Your task to perform on an android device: Open ESPN.com Image 0: 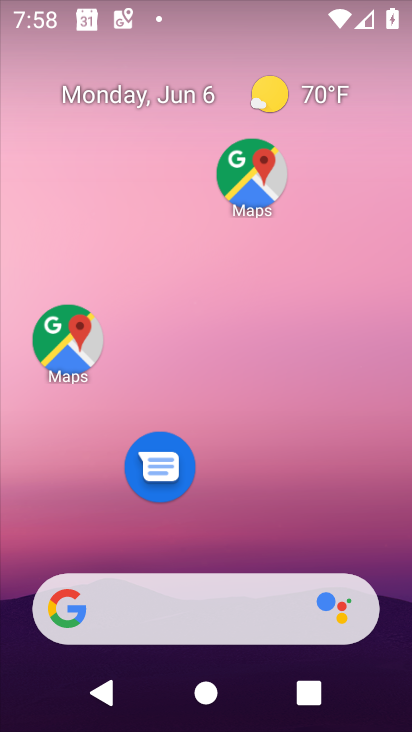
Step 0: drag from (244, 320) to (199, 102)
Your task to perform on an android device: Open ESPN.com Image 1: 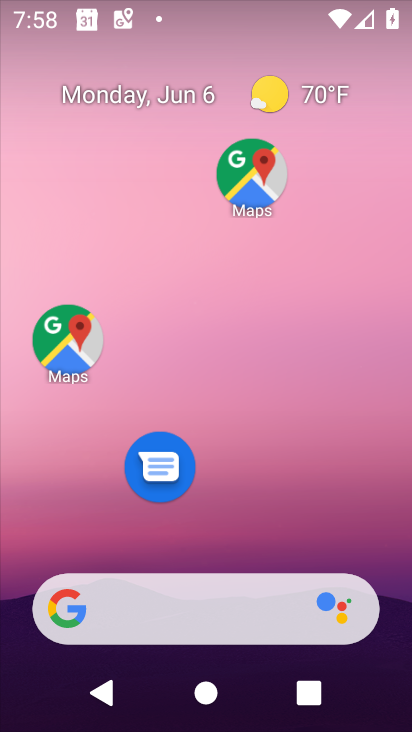
Step 1: drag from (252, 685) to (202, 87)
Your task to perform on an android device: Open ESPN.com Image 2: 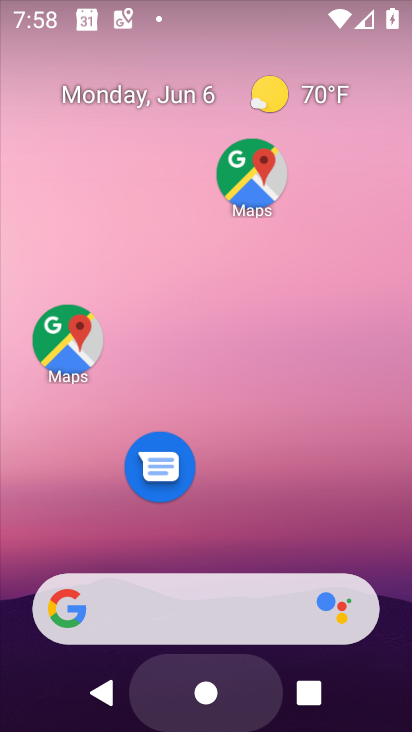
Step 2: drag from (217, 149) to (229, 9)
Your task to perform on an android device: Open ESPN.com Image 3: 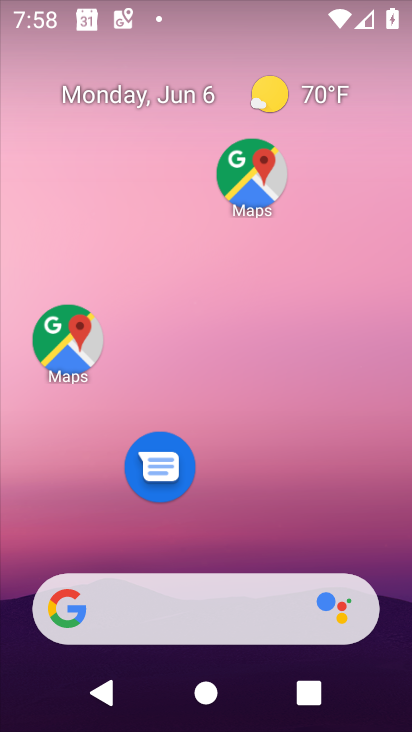
Step 3: drag from (316, 401) to (275, 138)
Your task to perform on an android device: Open ESPN.com Image 4: 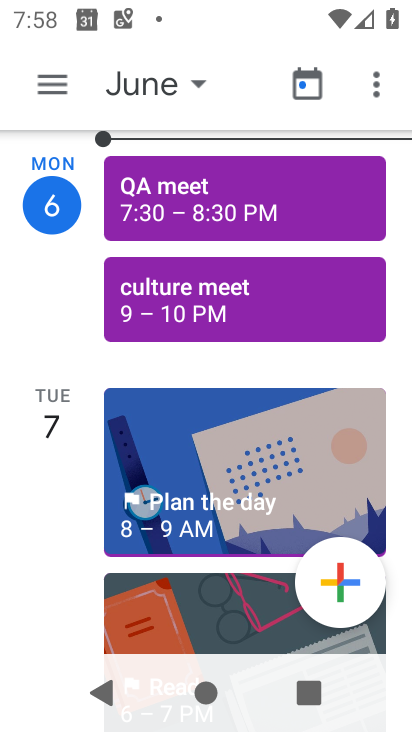
Step 4: drag from (293, 515) to (246, 217)
Your task to perform on an android device: Open ESPN.com Image 5: 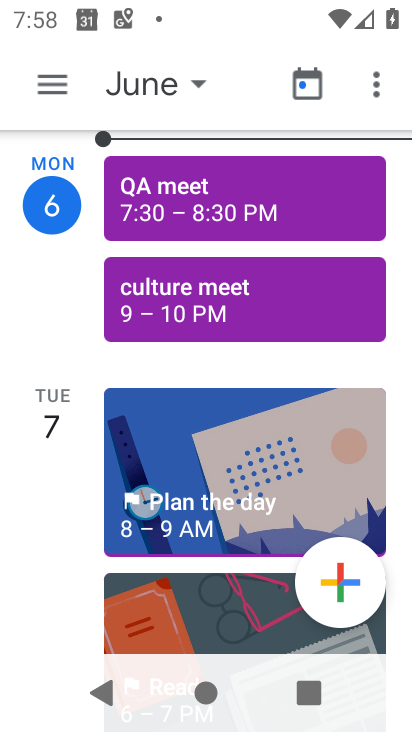
Step 5: press back button
Your task to perform on an android device: Open ESPN.com Image 6: 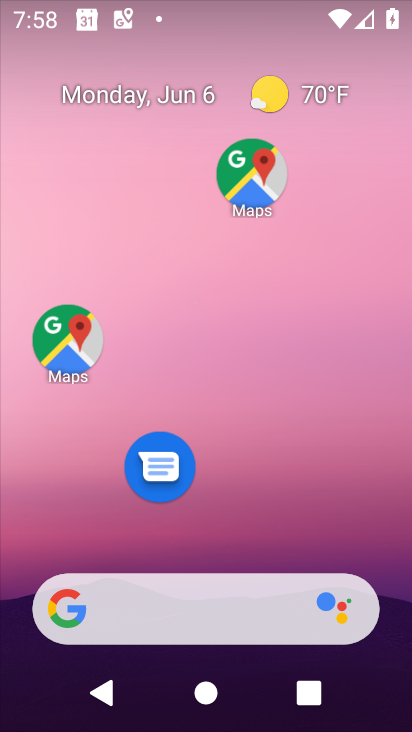
Step 6: drag from (252, 649) to (204, 93)
Your task to perform on an android device: Open ESPN.com Image 7: 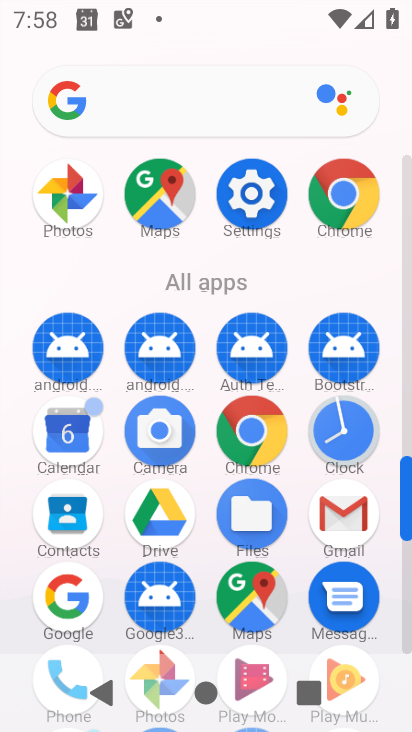
Step 7: drag from (353, 492) to (337, 198)
Your task to perform on an android device: Open ESPN.com Image 8: 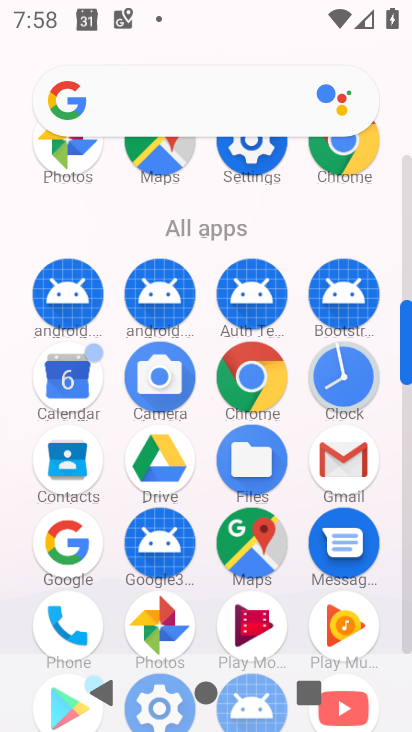
Step 8: drag from (216, 594) to (206, 178)
Your task to perform on an android device: Open ESPN.com Image 9: 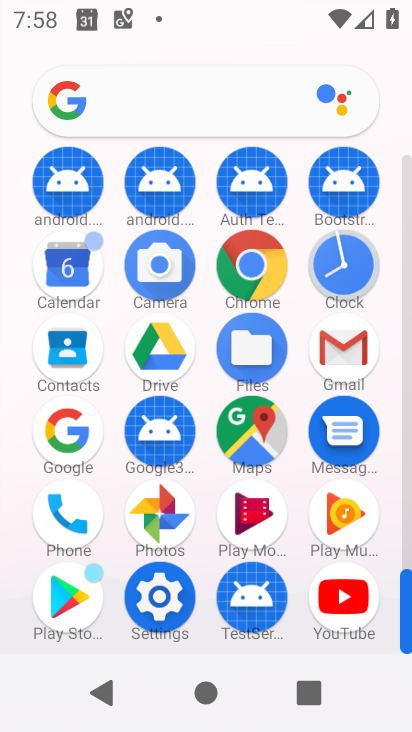
Step 9: drag from (212, 514) to (216, 214)
Your task to perform on an android device: Open ESPN.com Image 10: 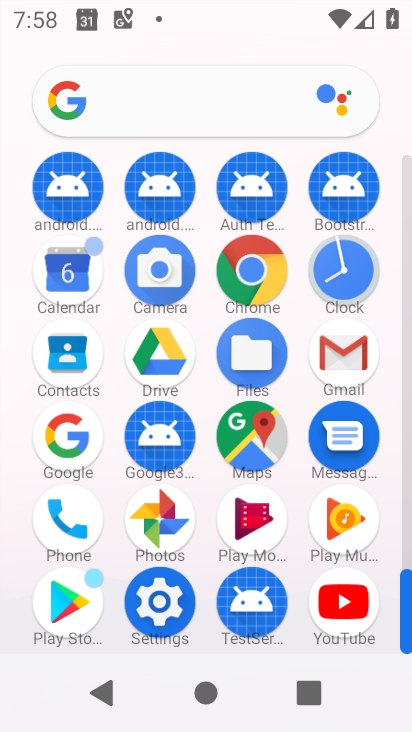
Step 10: drag from (194, 219) to (190, 143)
Your task to perform on an android device: Open ESPN.com Image 11: 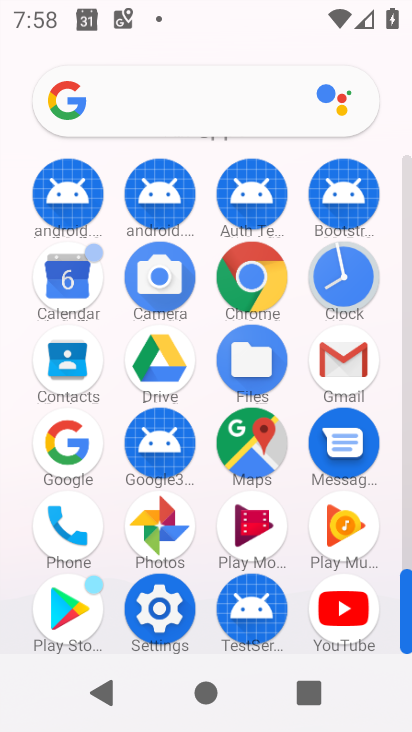
Step 11: click (258, 294)
Your task to perform on an android device: Open ESPN.com Image 12: 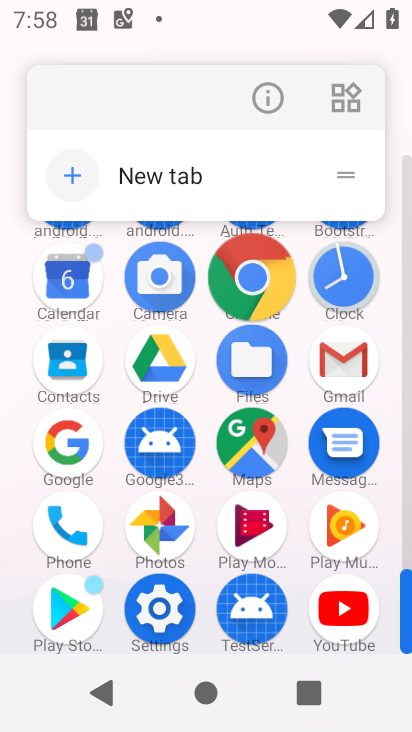
Step 12: click (256, 292)
Your task to perform on an android device: Open ESPN.com Image 13: 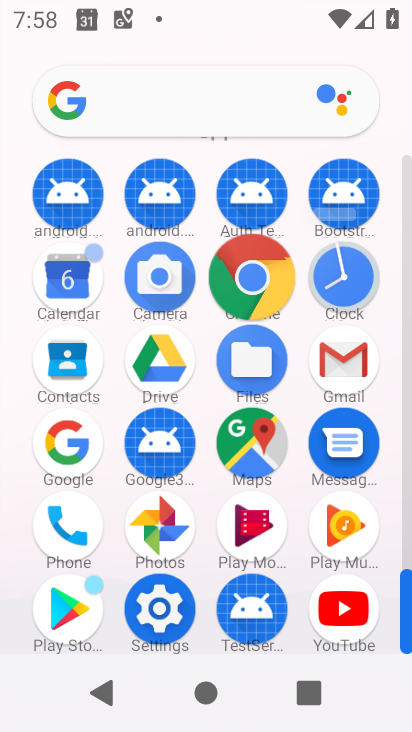
Step 13: click (254, 292)
Your task to perform on an android device: Open ESPN.com Image 14: 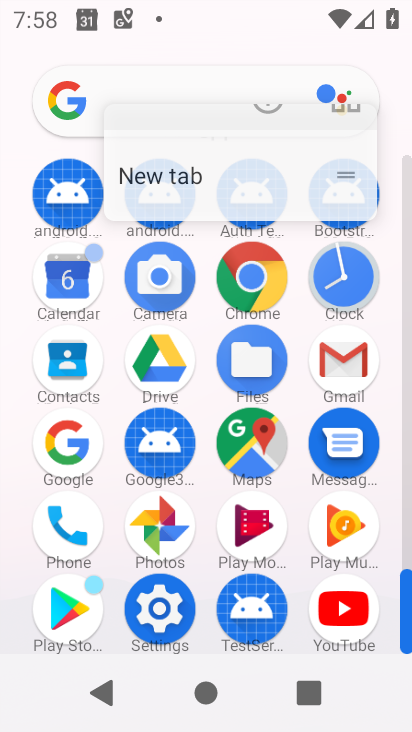
Step 14: click (252, 296)
Your task to perform on an android device: Open ESPN.com Image 15: 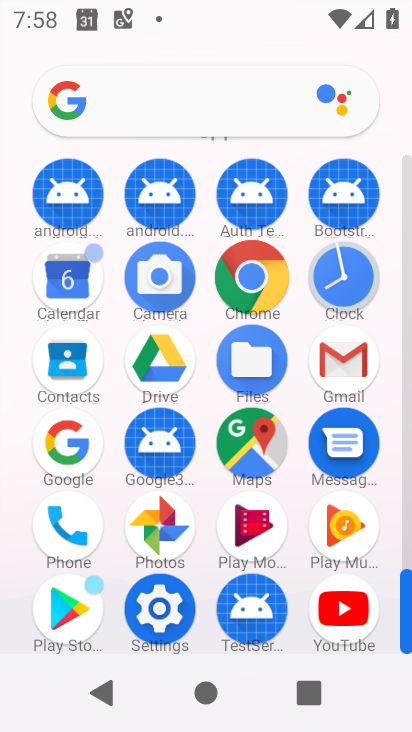
Step 15: click (249, 296)
Your task to perform on an android device: Open ESPN.com Image 16: 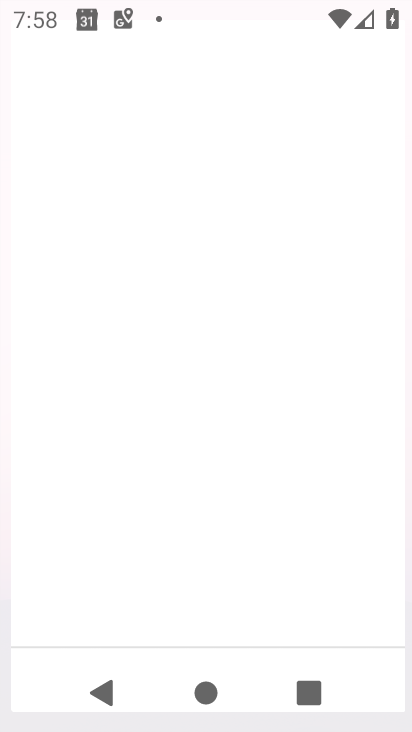
Step 16: click (245, 286)
Your task to perform on an android device: Open ESPN.com Image 17: 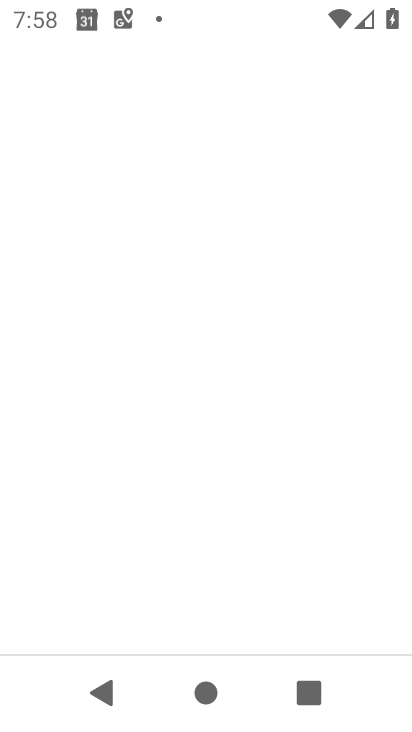
Step 17: click (240, 279)
Your task to perform on an android device: Open ESPN.com Image 18: 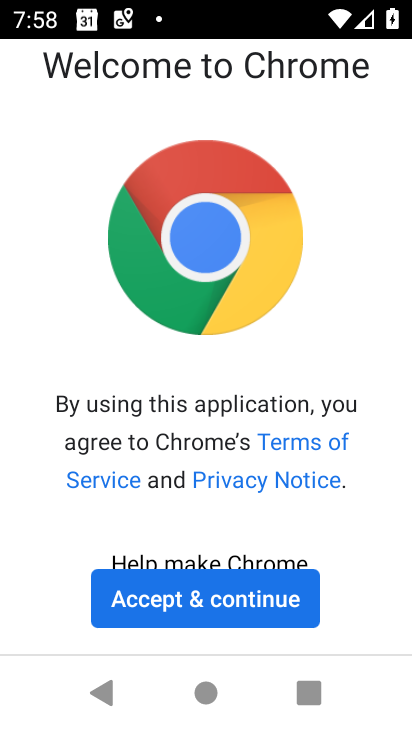
Step 18: click (213, 581)
Your task to perform on an android device: Open ESPN.com Image 19: 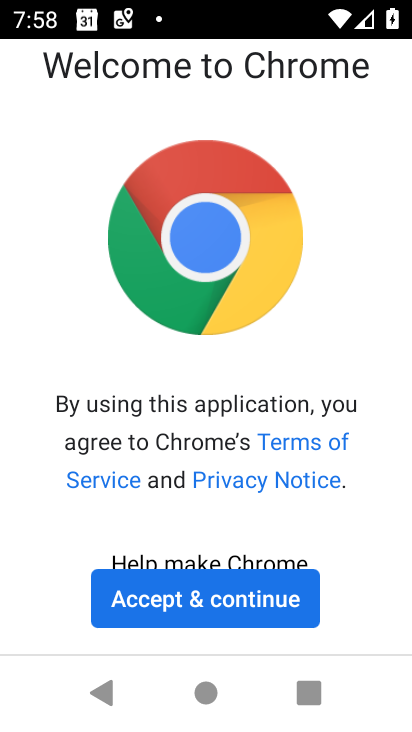
Step 19: click (219, 594)
Your task to perform on an android device: Open ESPN.com Image 20: 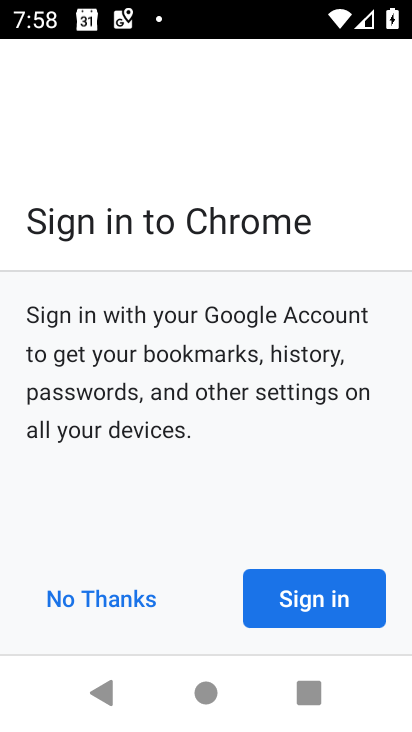
Step 20: click (227, 598)
Your task to perform on an android device: Open ESPN.com Image 21: 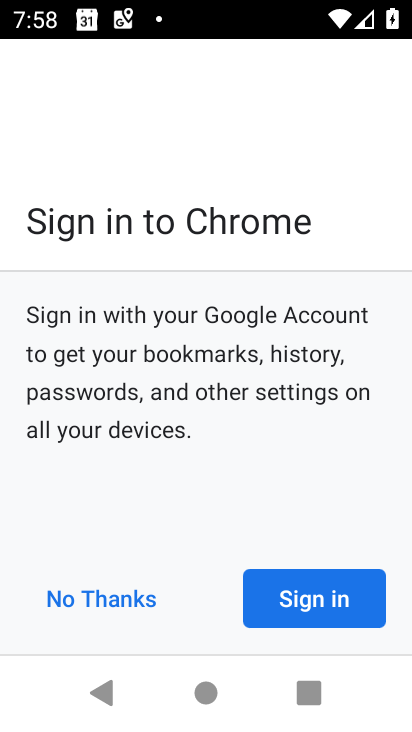
Step 21: click (234, 599)
Your task to perform on an android device: Open ESPN.com Image 22: 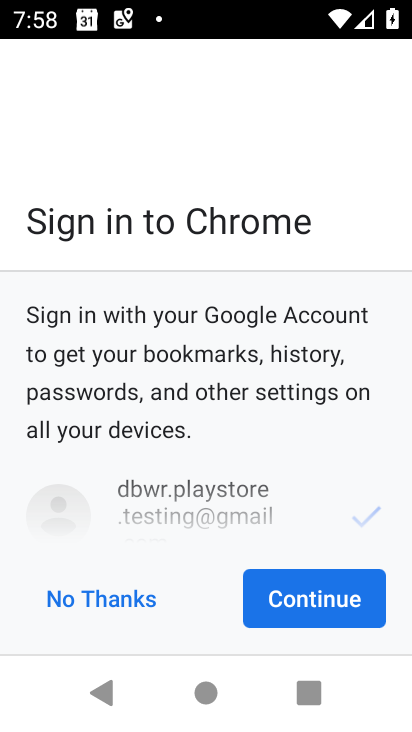
Step 22: click (236, 599)
Your task to perform on an android device: Open ESPN.com Image 23: 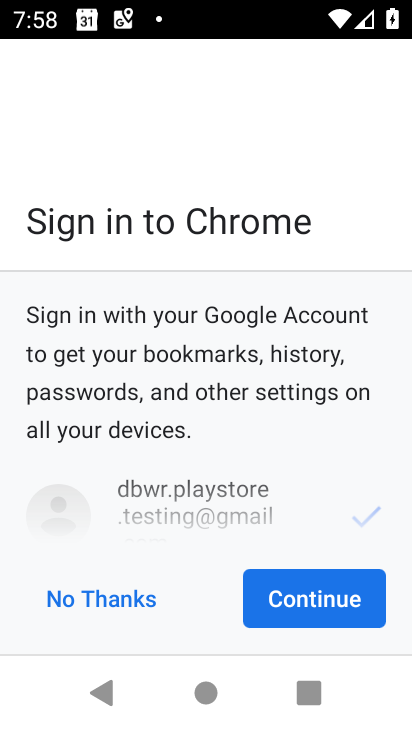
Step 23: click (354, 594)
Your task to perform on an android device: Open ESPN.com Image 24: 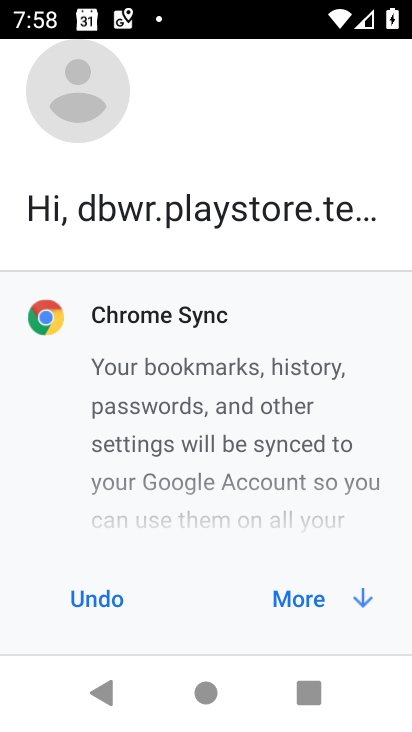
Step 24: click (350, 596)
Your task to perform on an android device: Open ESPN.com Image 25: 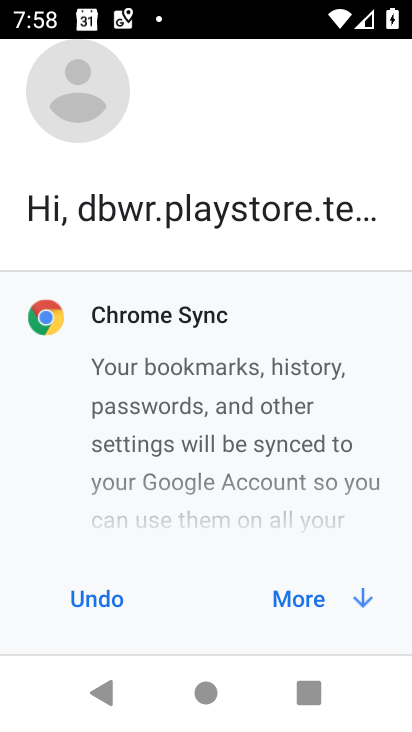
Step 25: click (348, 594)
Your task to perform on an android device: Open ESPN.com Image 26: 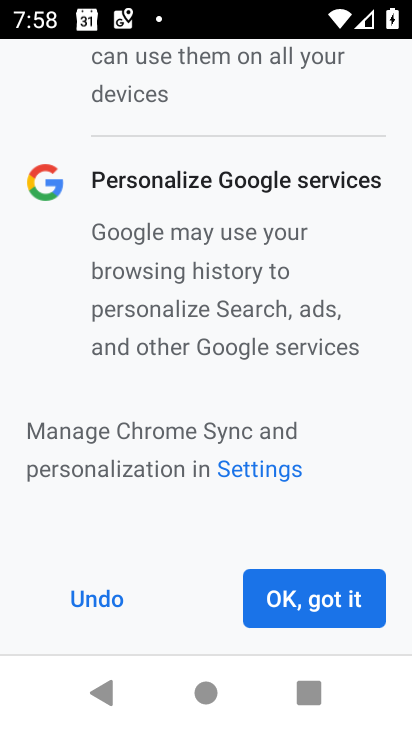
Step 26: click (343, 601)
Your task to perform on an android device: Open ESPN.com Image 27: 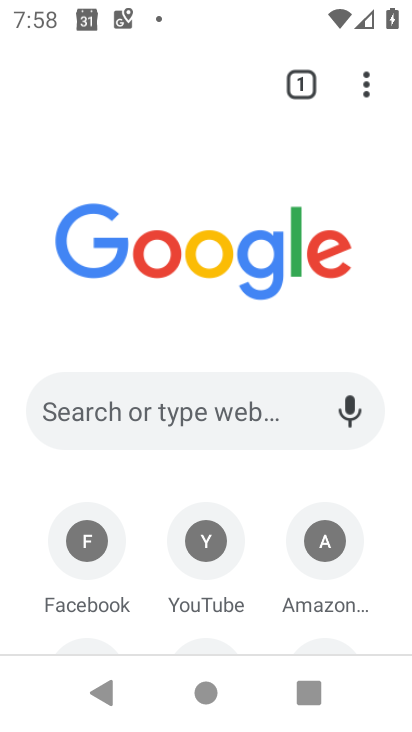
Step 27: drag from (364, 95) to (81, 177)
Your task to perform on an android device: Open ESPN.com Image 28: 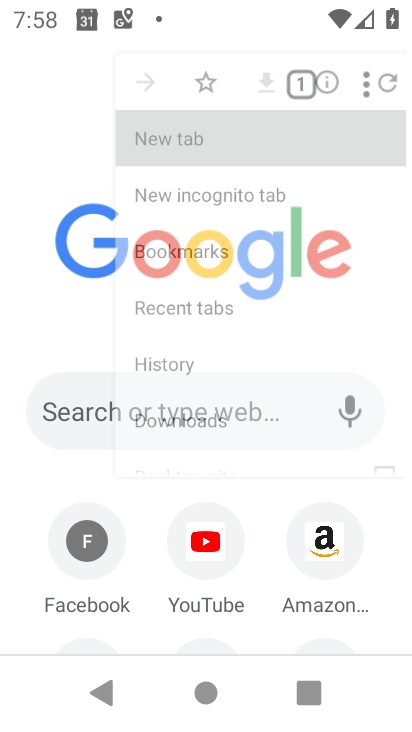
Step 28: click (81, 177)
Your task to perform on an android device: Open ESPN.com Image 29: 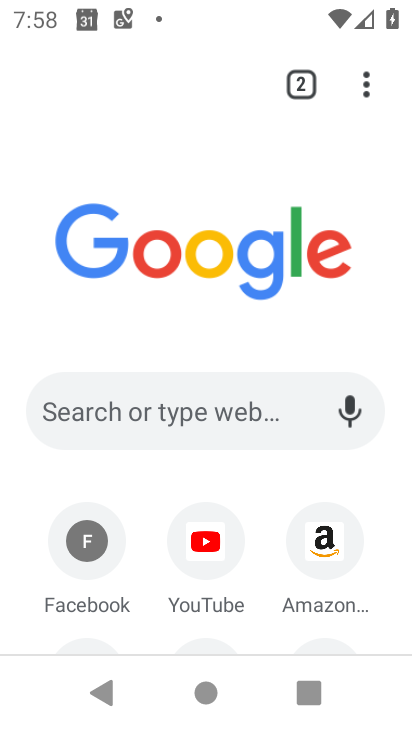
Step 29: drag from (254, 605) to (174, 251)
Your task to perform on an android device: Open ESPN.com Image 30: 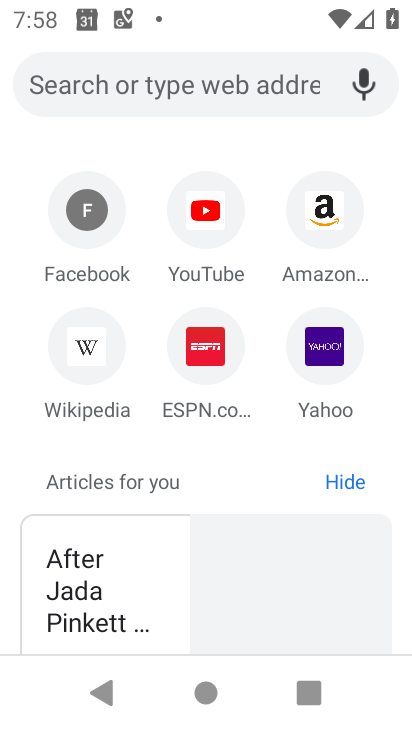
Step 30: drag from (214, 457) to (188, 238)
Your task to perform on an android device: Open ESPN.com Image 31: 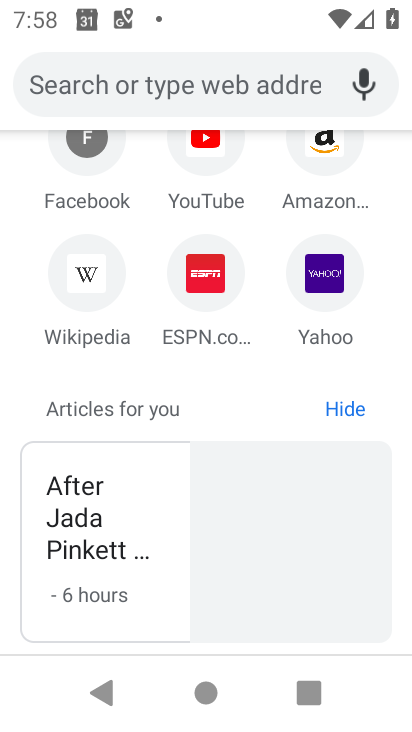
Step 31: drag from (266, 504) to (195, 134)
Your task to perform on an android device: Open ESPN.com Image 32: 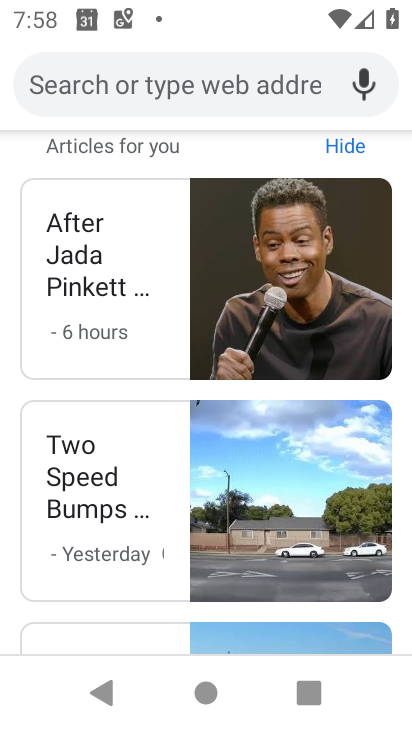
Step 32: drag from (203, 251) to (212, 572)
Your task to perform on an android device: Open ESPN.com Image 33: 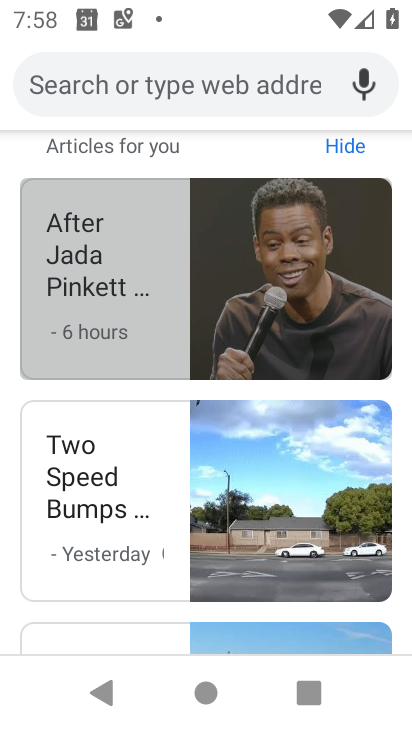
Step 33: drag from (235, 278) to (235, 599)
Your task to perform on an android device: Open ESPN.com Image 34: 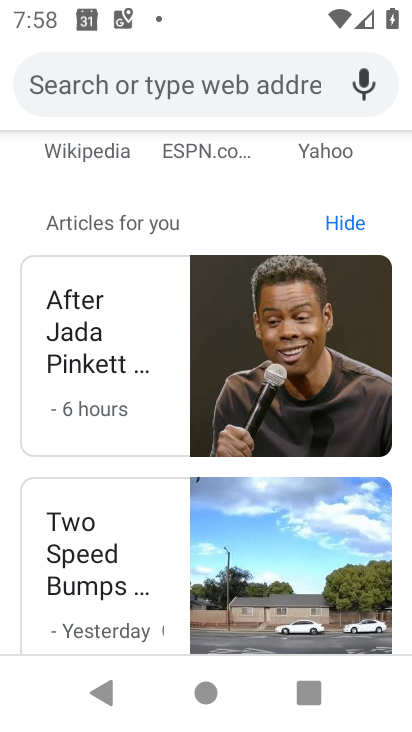
Step 34: click (199, 153)
Your task to perform on an android device: Open ESPN.com Image 35: 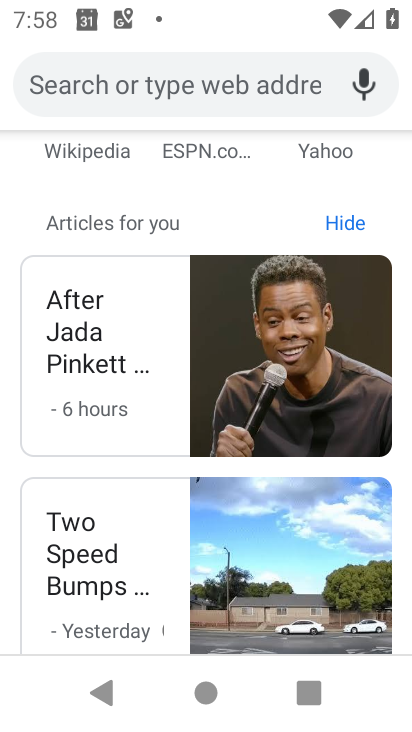
Step 35: click (199, 153)
Your task to perform on an android device: Open ESPN.com Image 36: 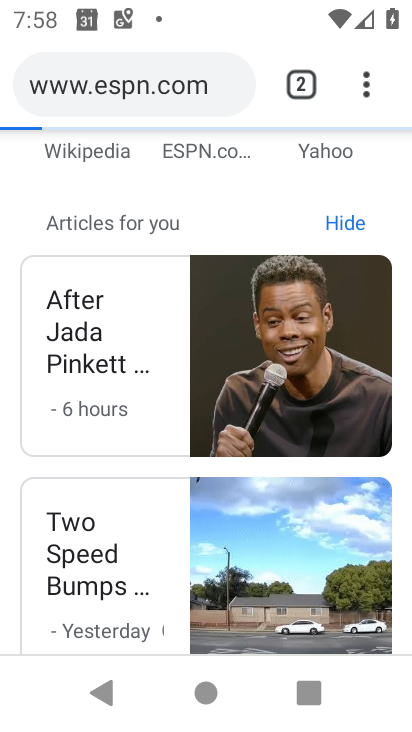
Step 36: click (205, 155)
Your task to perform on an android device: Open ESPN.com Image 37: 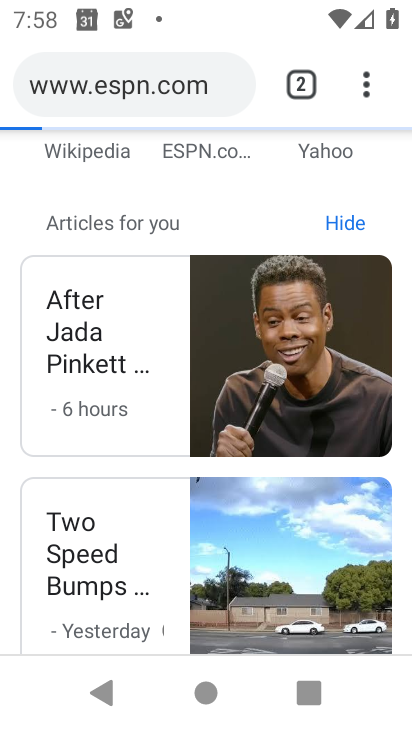
Step 37: click (211, 159)
Your task to perform on an android device: Open ESPN.com Image 38: 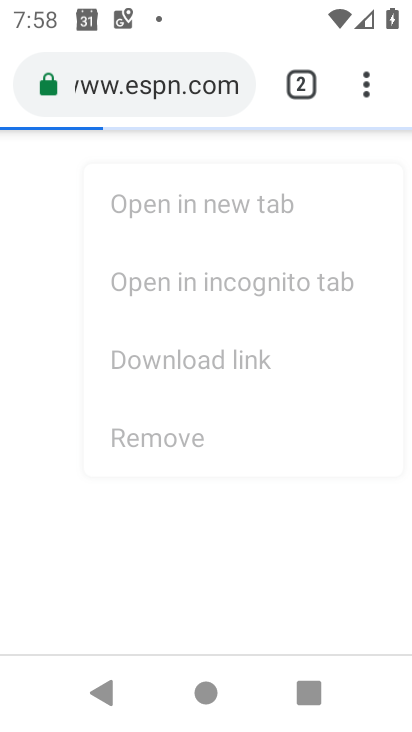
Step 38: click (211, 159)
Your task to perform on an android device: Open ESPN.com Image 39: 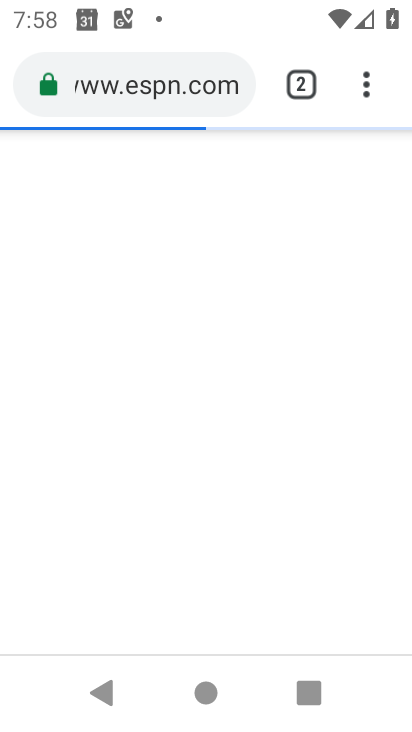
Step 39: click (214, 162)
Your task to perform on an android device: Open ESPN.com Image 40: 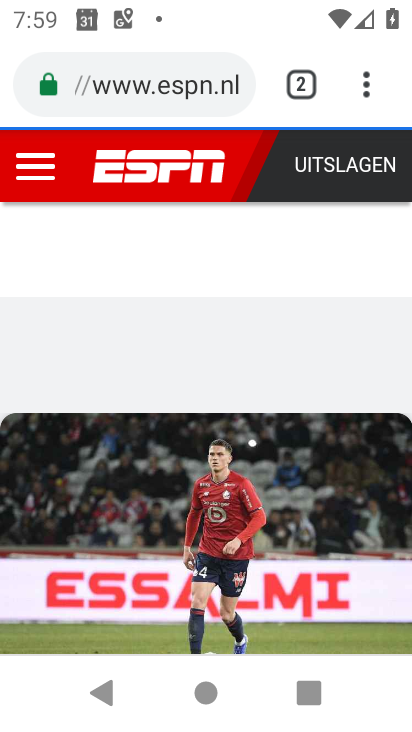
Step 40: task complete